Your task to perform on an android device: check storage Image 0: 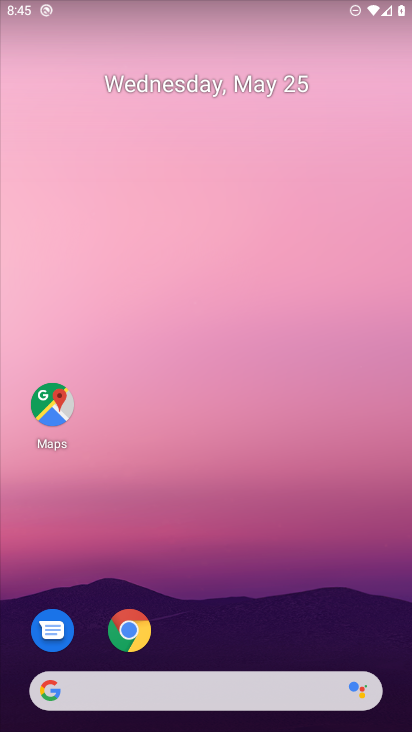
Step 0: drag from (173, 668) to (263, 292)
Your task to perform on an android device: check storage Image 1: 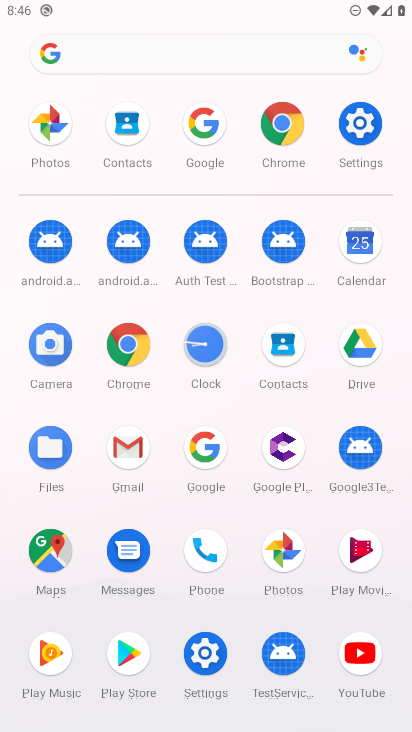
Step 1: click (353, 118)
Your task to perform on an android device: check storage Image 2: 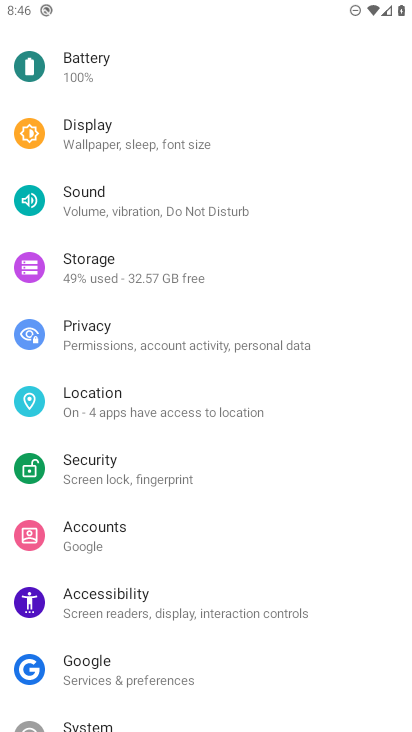
Step 2: click (124, 271)
Your task to perform on an android device: check storage Image 3: 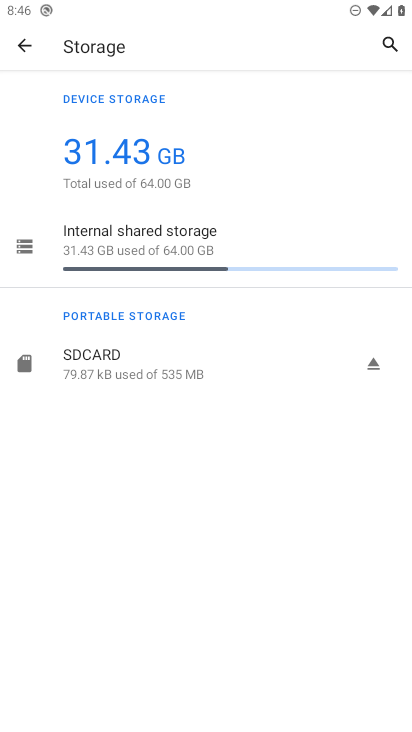
Step 3: task complete